Your task to perform on an android device: turn on showing notifications on the lock screen Image 0: 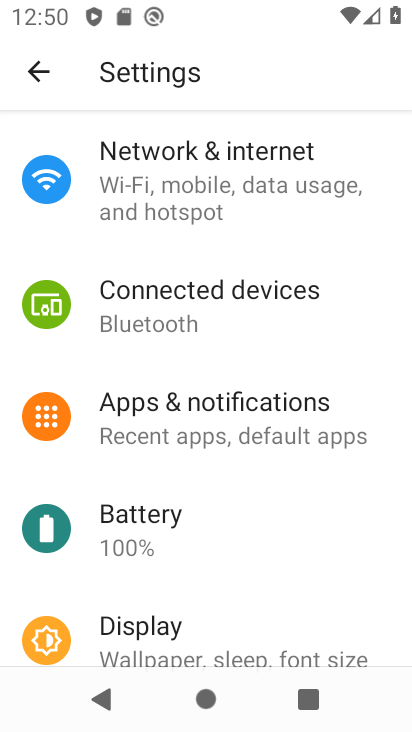
Step 0: click (255, 432)
Your task to perform on an android device: turn on showing notifications on the lock screen Image 1: 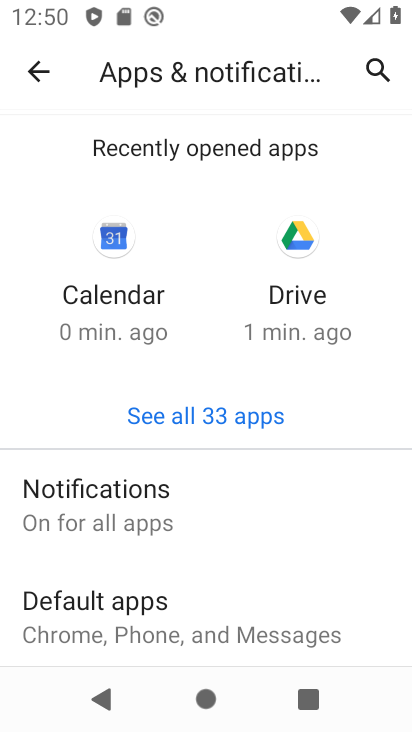
Step 1: click (190, 529)
Your task to perform on an android device: turn on showing notifications on the lock screen Image 2: 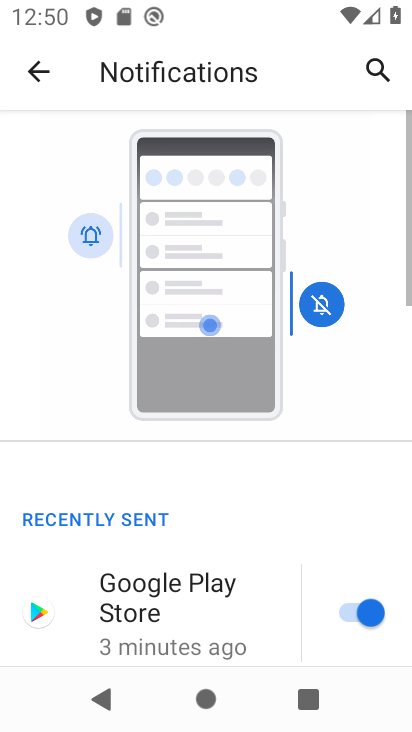
Step 2: drag from (193, 634) to (208, 292)
Your task to perform on an android device: turn on showing notifications on the lock screen Image 3: 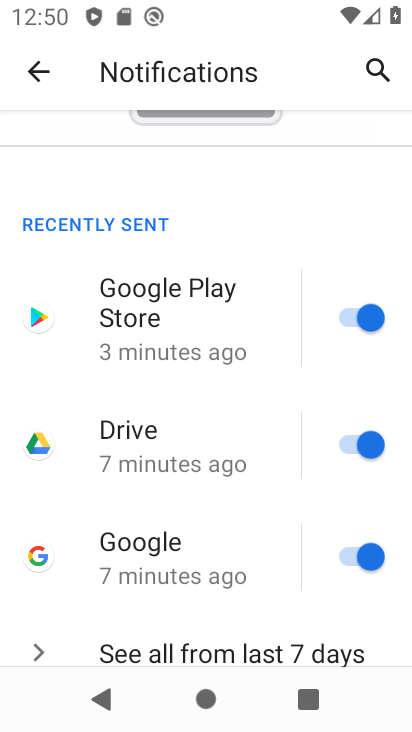
Step 3: drag from (207, 574) to (246, 205)
Your task to perform on an android device: turn on showing notifications on the lock screen Image 4: 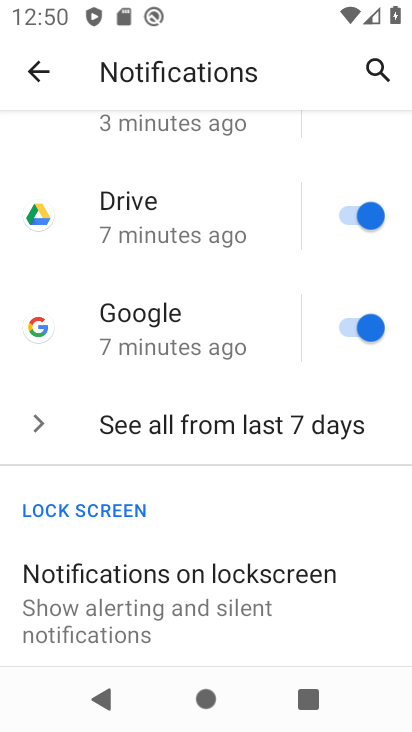
Step 4: click (195, 577)
Your task to perform on an android device: turn on showing notifications on the lock screen Image 5: 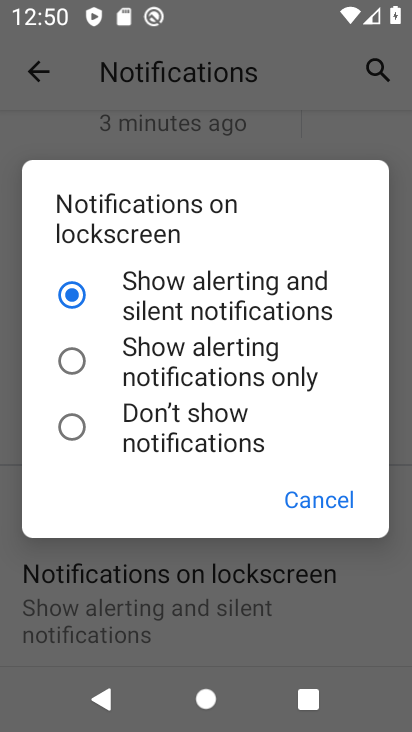
Step 5: task complete